Your task to perform on an android device: Go to internet settings Image 0: 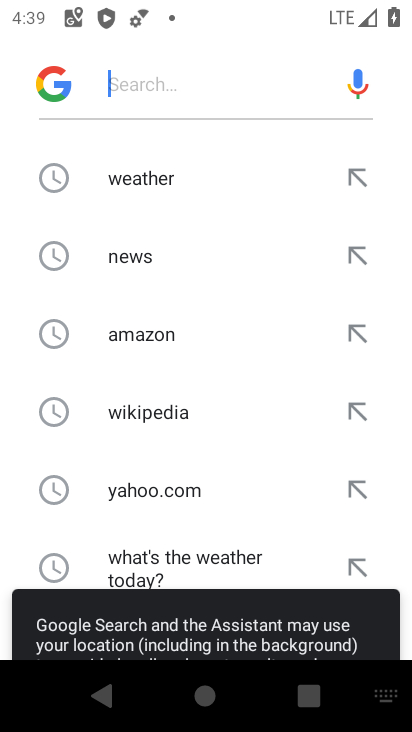
Step 0: press home button
Your task to perform on an android device: Go to internet settings Image 1: 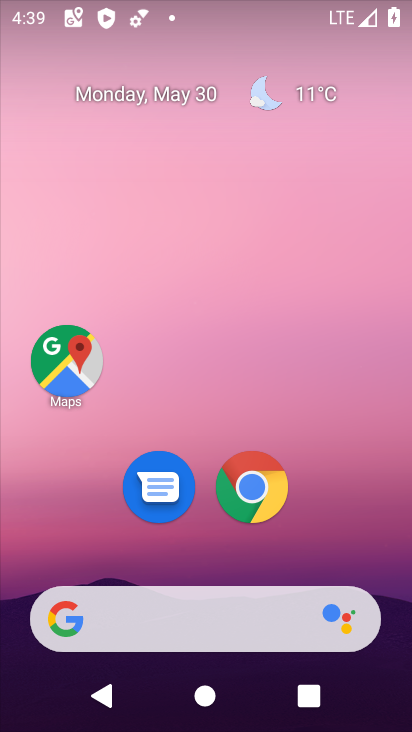
Step 1: drag from (401, 612) to (294, 150)
Your task to perform on an android device: Go to internet settings Image 2: 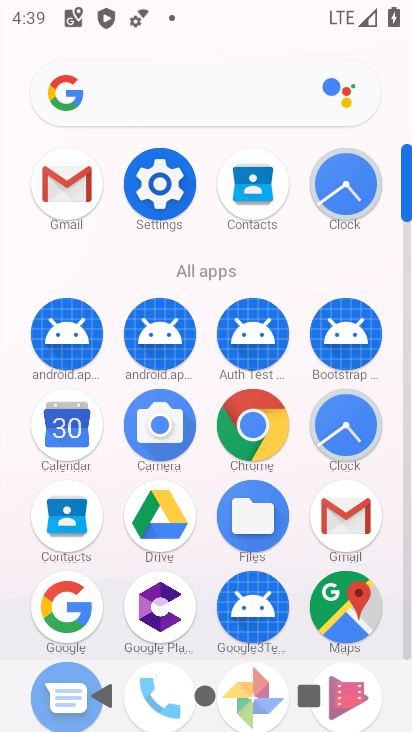
Step 2: click (405, 617)
Your task to perform on an android device: Go to internet settings Image 3: 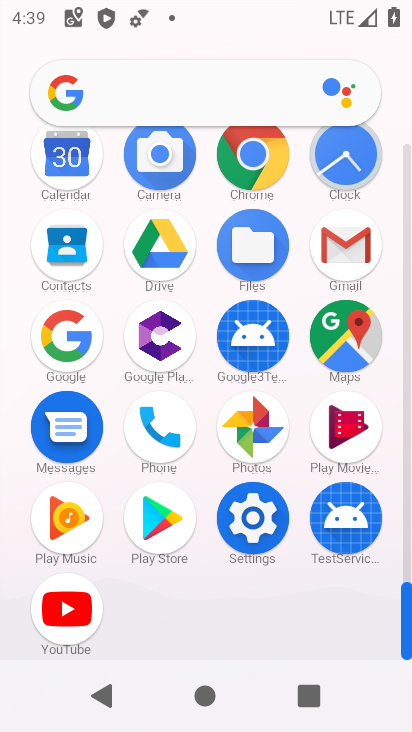
Step 3: click (252, 518)
Your task to perform on an android device: Go to internet settings Image 4: 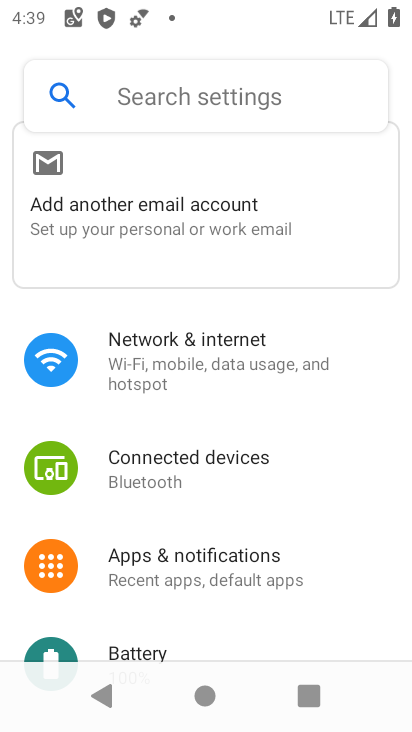
Step 4: click (154, 353)
Your task to perform on an android device: Go to internet settings Image 5: 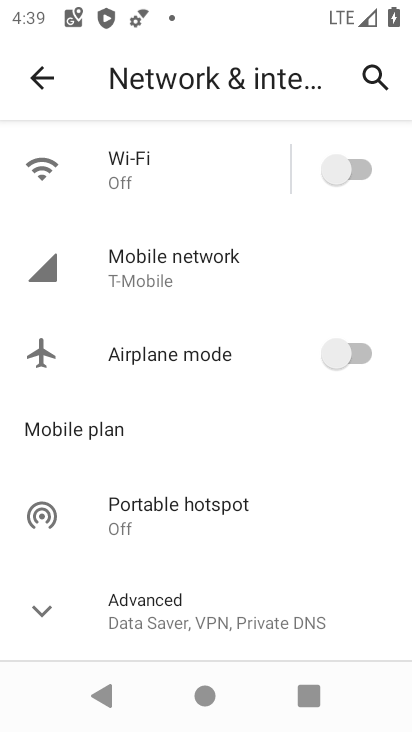
Step 5: click (145, 255)
Your task to perform on an android device: Go to internet settings Image 6: 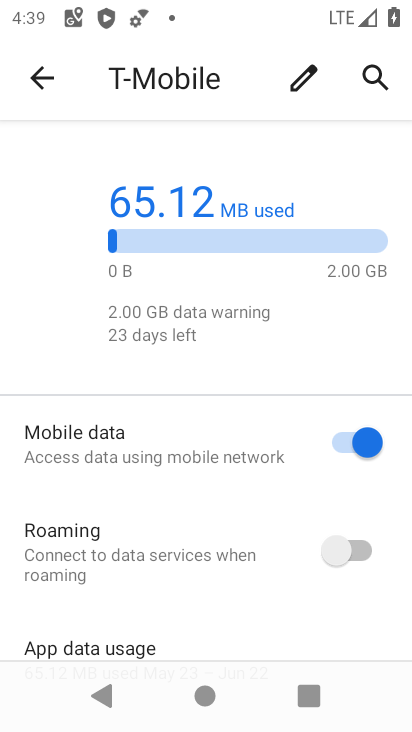
Step 6: task complete